Your task to perform on an android device: turn vacation reply on in the gmail app Image 0: 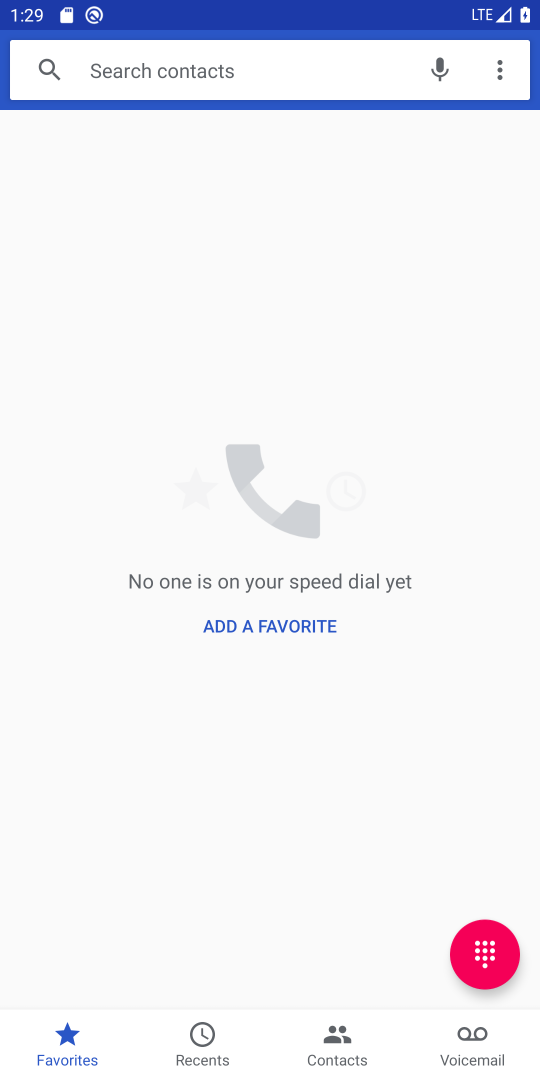
Step 0: press home button
Your task to perform on an android device: turn vacation reply on in the gmail app Image 1: 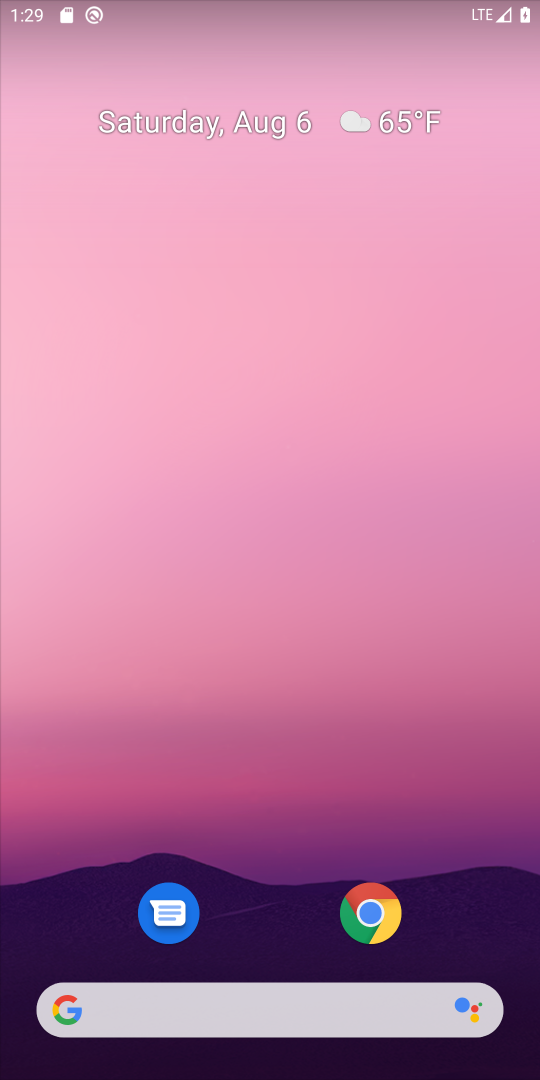
Step 1: drag from (279, 935) to (347, 167)
Your task to perform on an android device: turn vacation reply on in the gmail app Image 2: 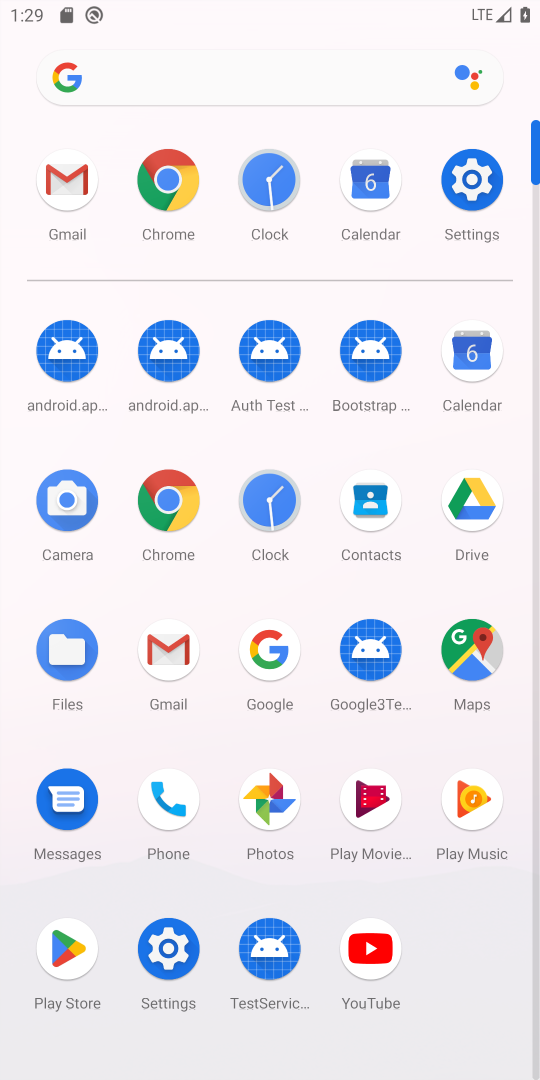
Step 2: click (169, 664)
Your task to perform on an android device: turn vacation reply on in the gmail app Image 3: 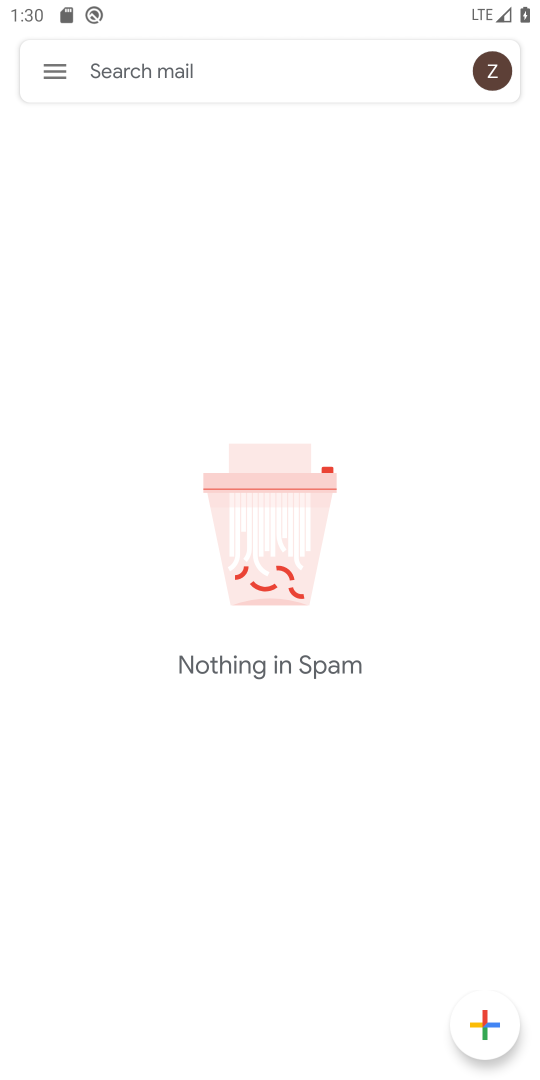
Step 3: click (59, 69)
Your task to perform on an android device: turn vacation reply on in the gmail app Image 4: 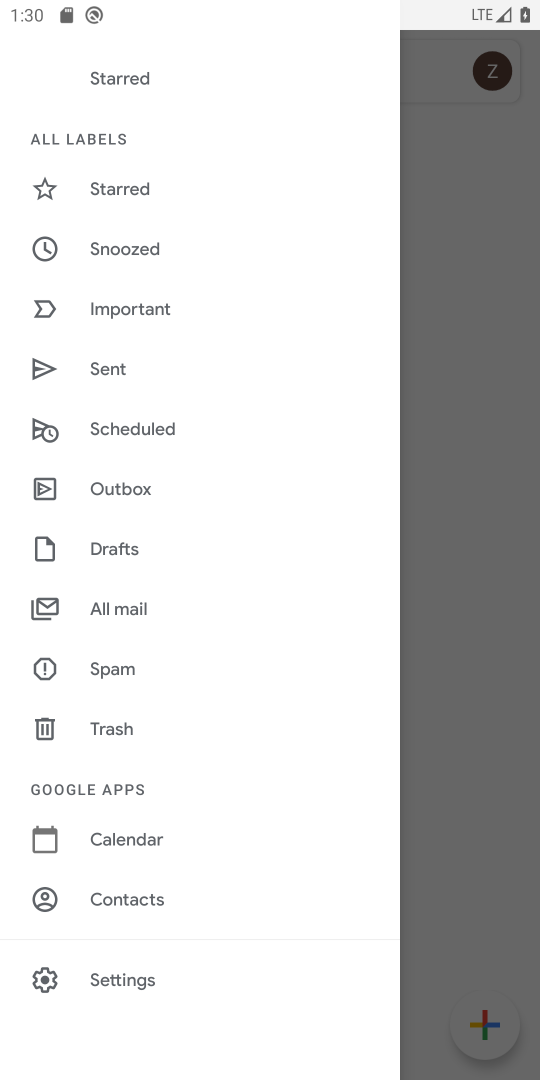
Step 4: click (158, 986)
Your task to perform on an android device: turn vacation reply on in the gmail app Image 5: 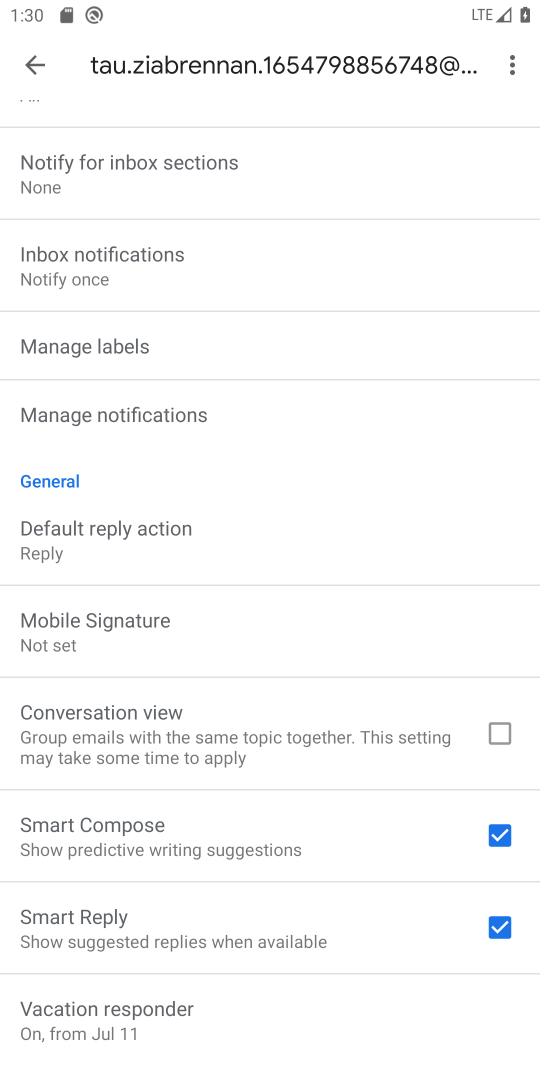
Step 5: click (140, 1018)
Your task to perform on an android device: turn vacation reply on in the gmail app Image 6: 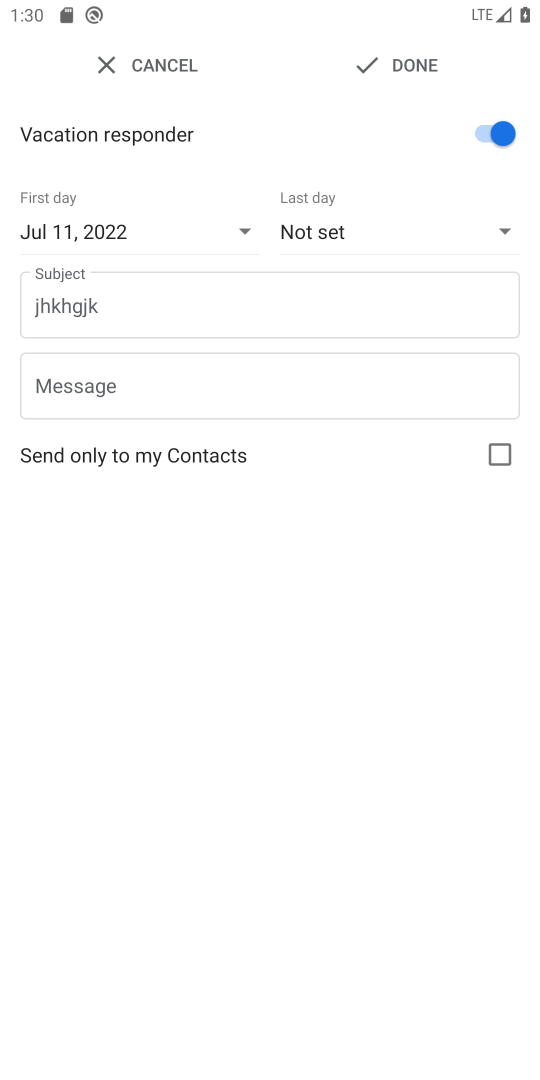
Step 6: task complete